Your task to perform on an android device: Open calendar and show me the fourth week of next month Image 0: 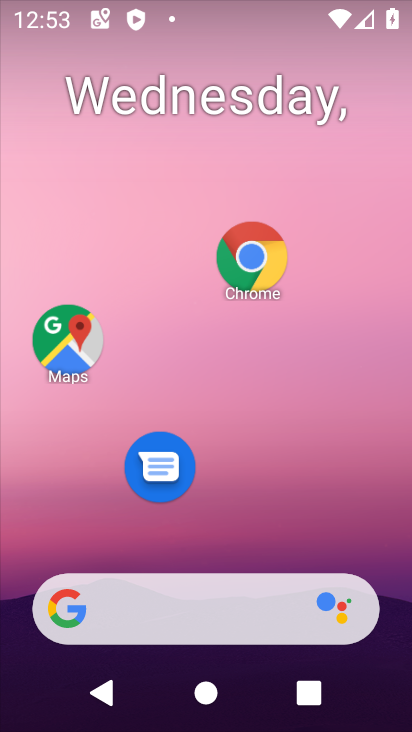
Step 0: press home button
Your task to perform on an android device: Open calendar and show me the fourth week of next month Image 1: 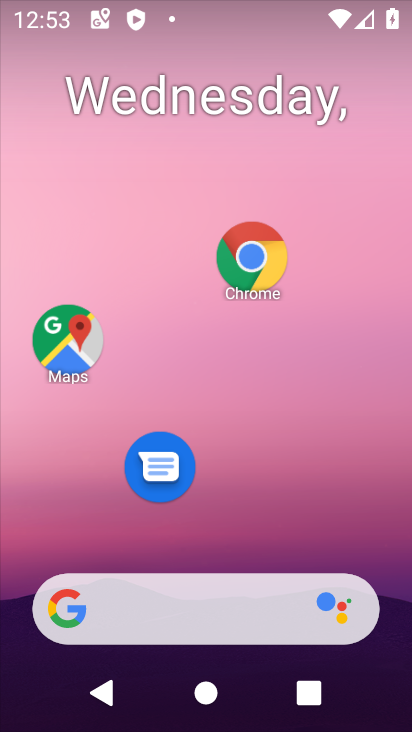
Step 1: drag from (327, 532) to (200, 170)
Your task to perform on an android device: Open calendar and show me the fourth week of next month Image 2: 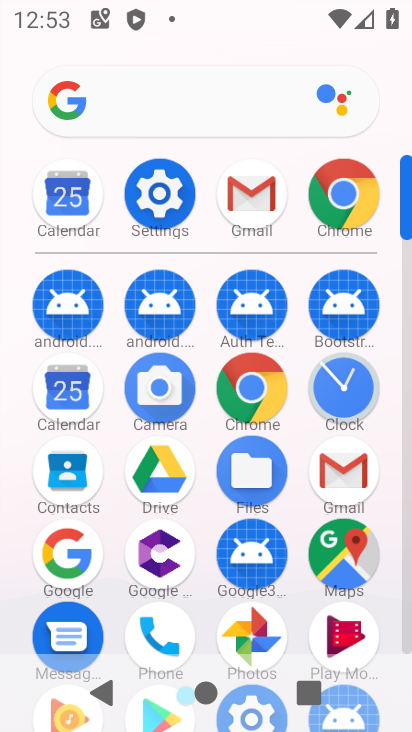
Step 2: click (408, 651)
Your task to perform on an android device: Open calendar and show me the fourth week of next month Image 3: 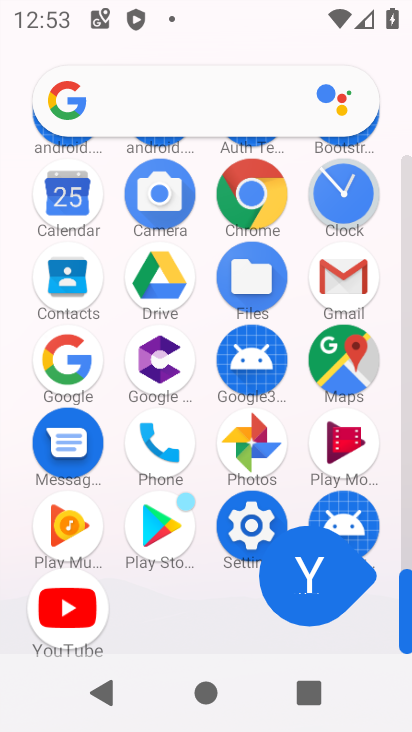
Step 3: click (408, 651)
Your task to perform on an android device: Open calendar and show me the fourth week of next month Image 4: 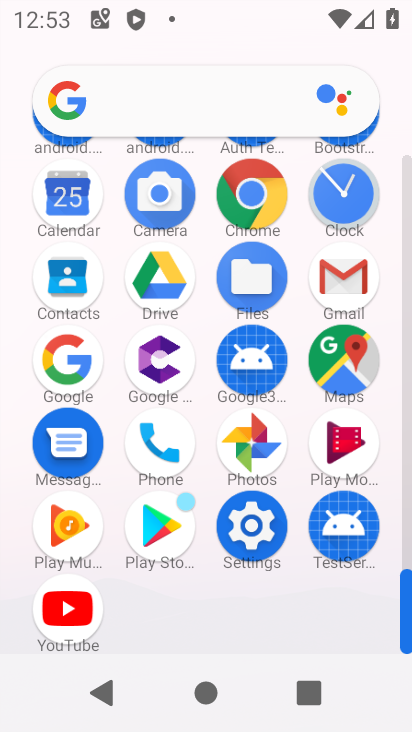
Step 4: click (82, 188)
Your task to perform on an android device: Open calendar and show me the fourth week of next month Image 5: 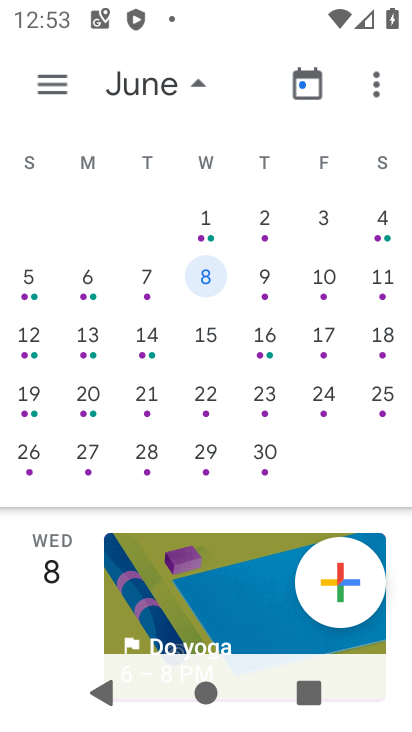
Step 5: drag from (29, 300) to (0, 421)
Your task to perform on an android device: Open calendar and show me the fourth week of next month Image 6: 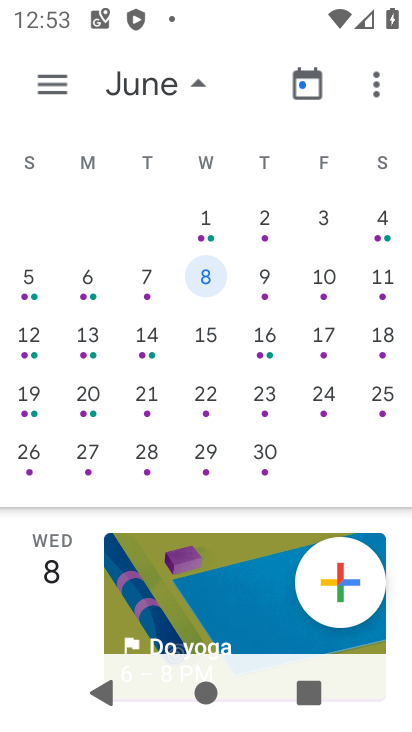
Step 6: drag from (129, 305) to (367, 307)
Your task to perform on an android device: Open calendar and show me the fourth week of next month Image 7: 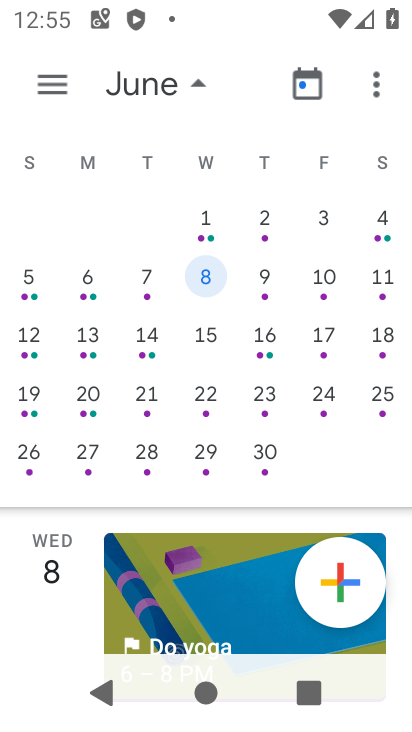
Step 7: drag from (119, 338) to (382, 308)
Your task to perform on an android device: Open calendar and show me the fourth week of next month Image 8: 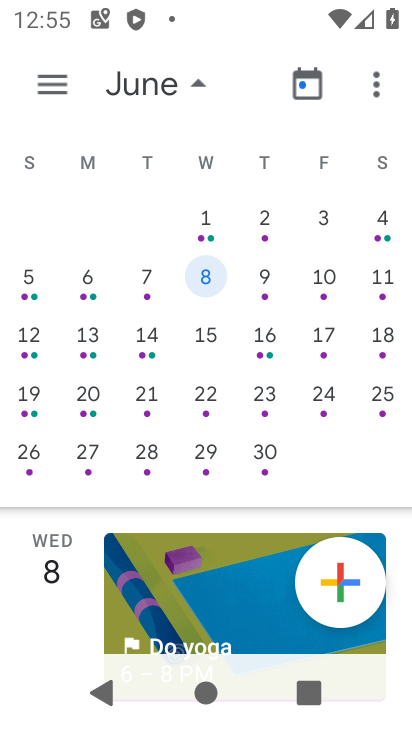
Step 8: drag from (94, 352) to (357, 319)
Your task to perform on an android device: Open calendar and show me the fourth week of next month Image 9: 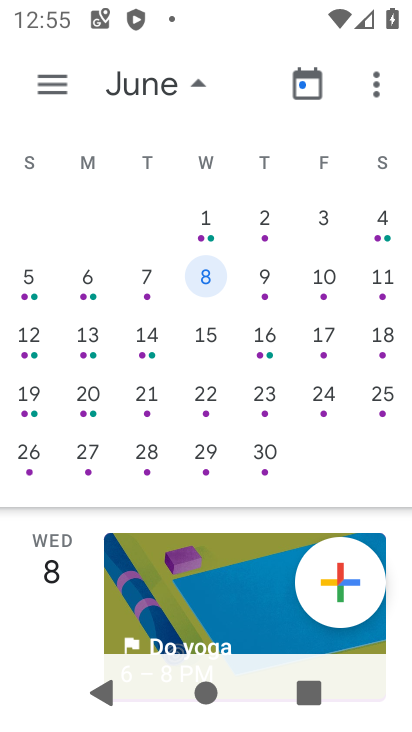
Step 9: drag from (50, 210) to (352, 243)
Your task to perform on an android device: Open calendar and show me the fourth week of next month Image 10: 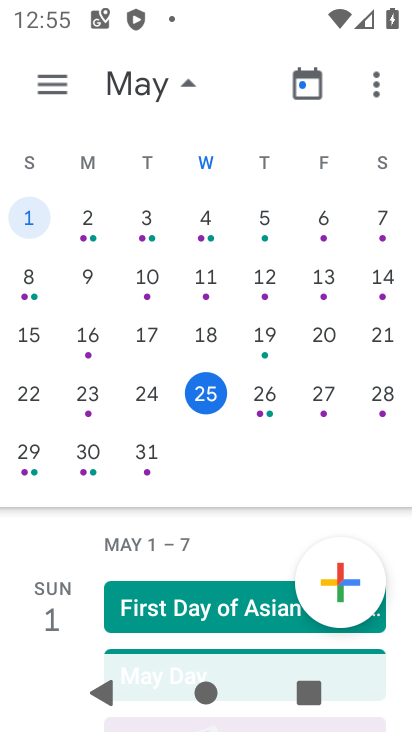
Step 10: drag from (410, 282) to (84, 327)
Your task to perform on an android device: Open calendar and show me the fourth week of next month Image 11: 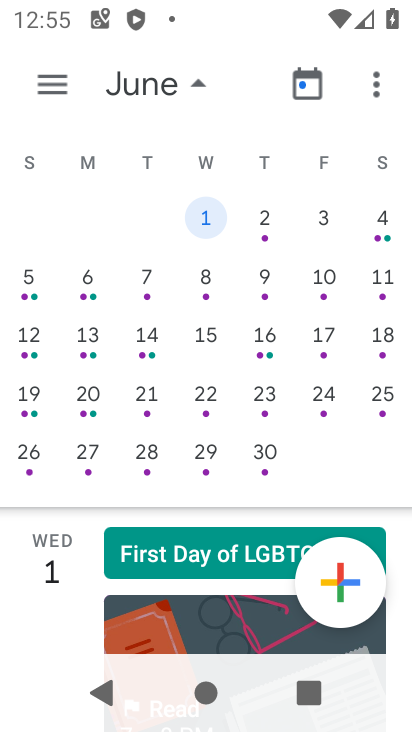
Step 11: click (198, 378)
Your task to perform on an android device: Open calendar and show me the fourth week of next month Image 12: 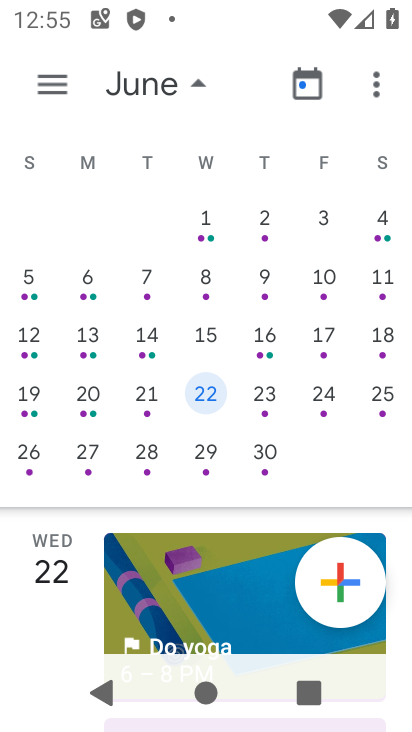
Step 12: task complete